Your task to perform on an android device: Open privacy settings Image 0: 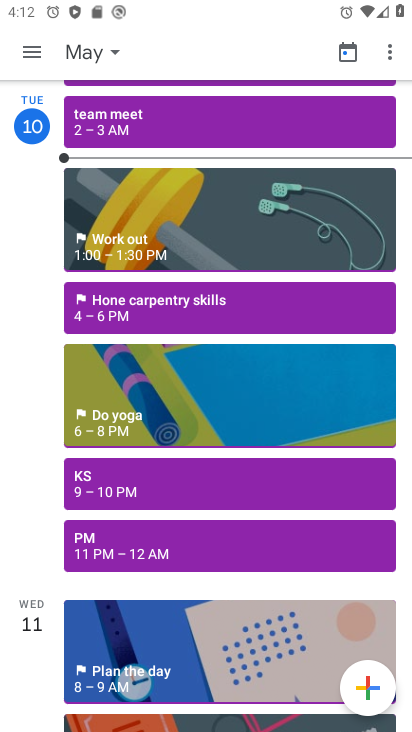
Step 0: press back button
Your task to perform on an android device: Open privacy settings Image 1: 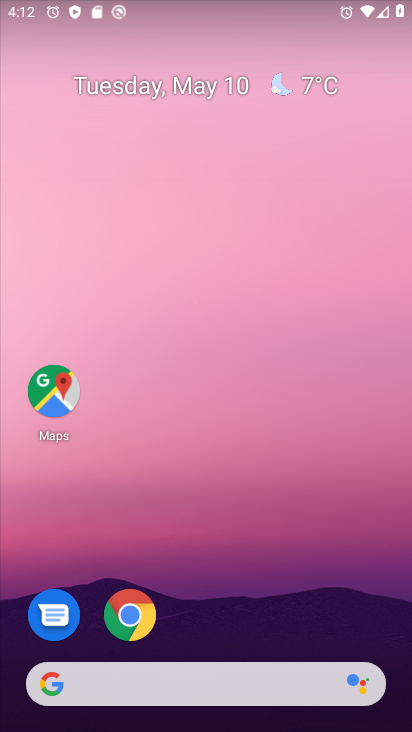
Step 1: drag from (221, 579) to (226, 57)
Your task to perform on an android device: Open privacy settings Image 2: 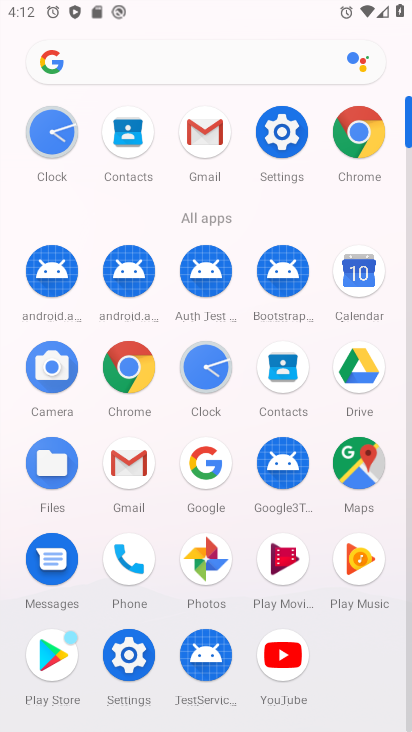
Step 2: click (130, 363)
Your task to perform on an android device: Open privacy settings Image 3: 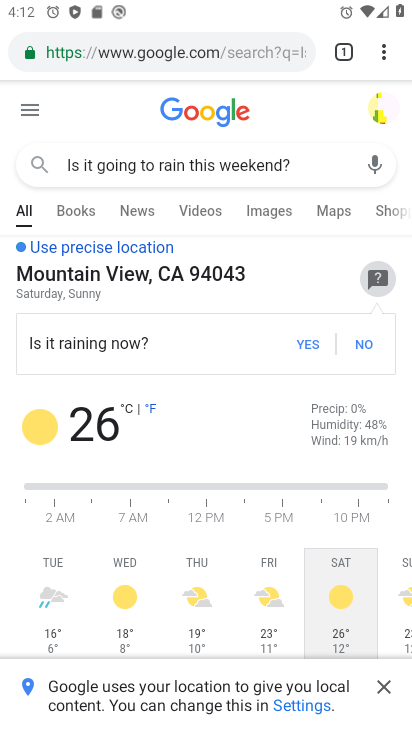
Step 3: drag from (386, 54) to (236, 647)
Your task to perform on an android device: Open privacy settings Image 4: 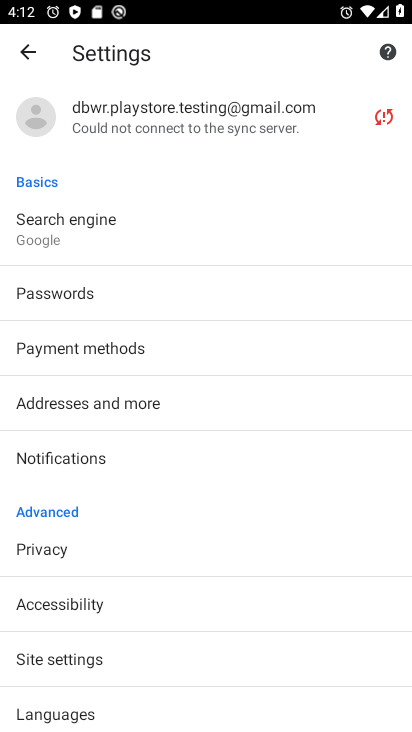
Step 4: click (50, 545)
Your task to perform on an android device: Open privacy settings Image 5: 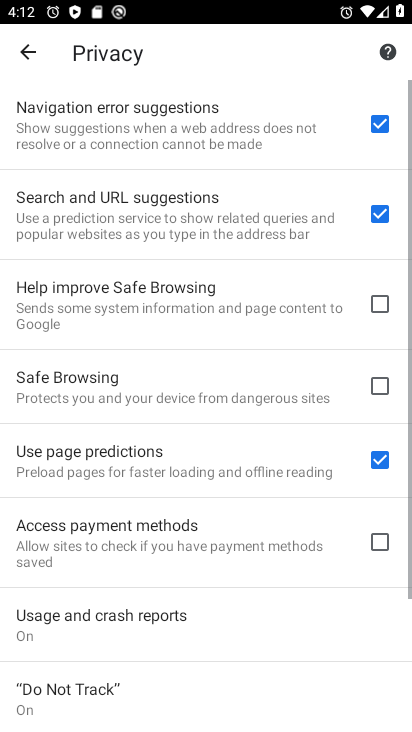
Step 5: task complete